Your task to perform on an android device: turn off wifi Image 0: 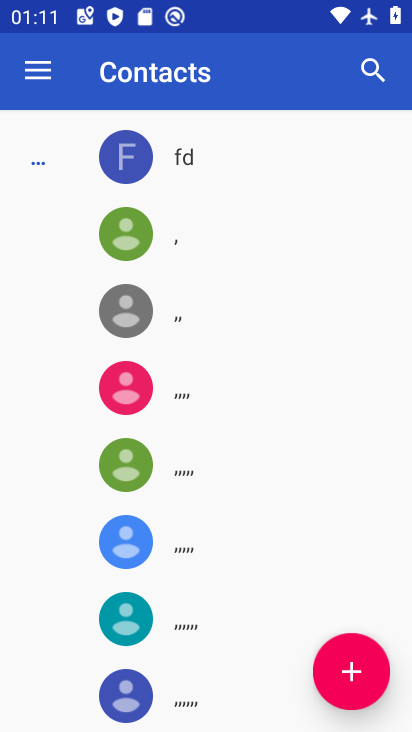
Step 0: press home button
Your task to perform on an android device: turn off wifi Image 1: 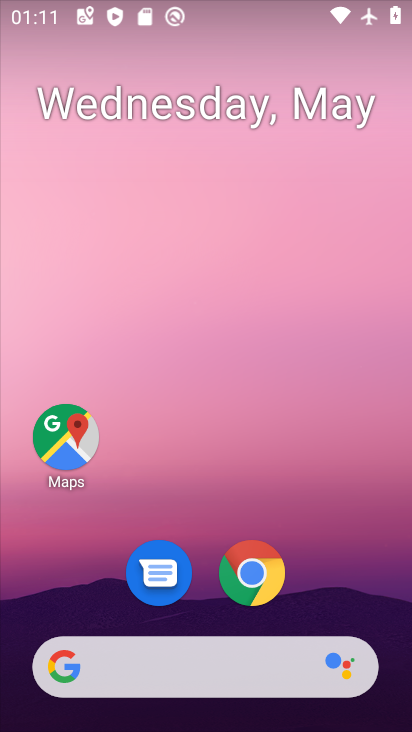
Step 1: drag from (299, 593) to (265, 243)
Your task to perform on an android device: turn off wifi Image 2: 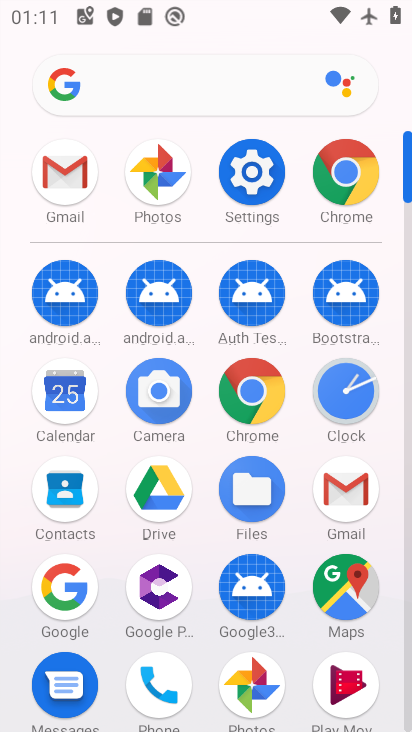
Step 2: click (246, 154)
Your task to perform on an android device: turn off wifi Image 3: 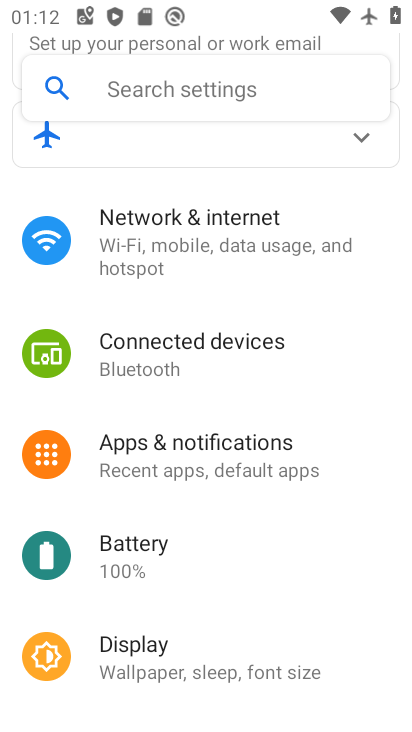
Step 3: click (204, 236)
Your task to perform on an android device: turn off wifi Image 4: 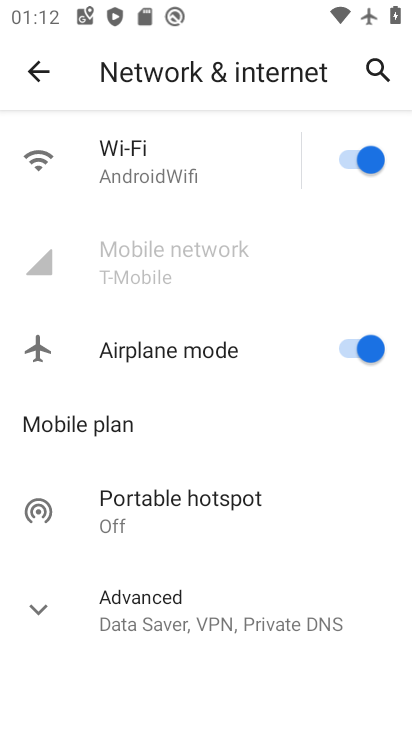
Step 4: click (342, 144)
Your task to perform on an android device: turn off wifi Image 5: 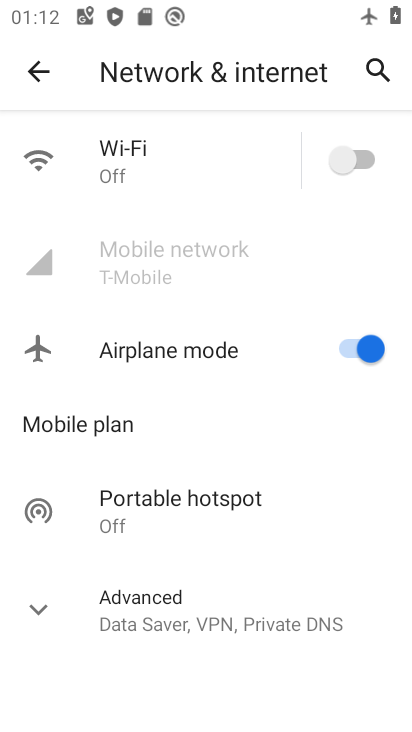
Step 5: task complete